Your task to perform on an android device: change the clock display to analog Image 0: 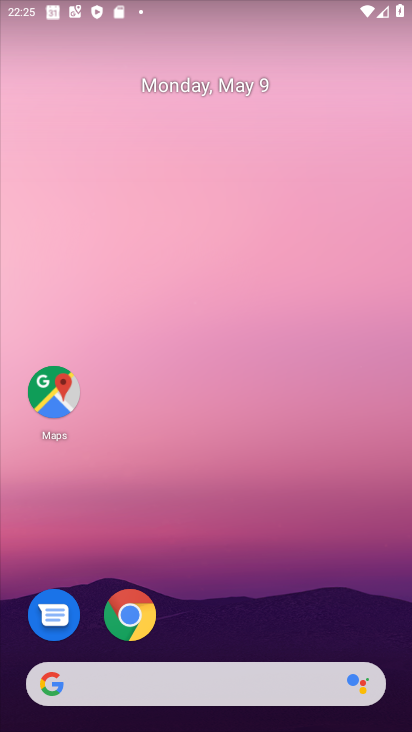
Step 0: drag from (213, 574) to (262, 94)
Your task to perform on an android device: change the clock display to analog Image 1: 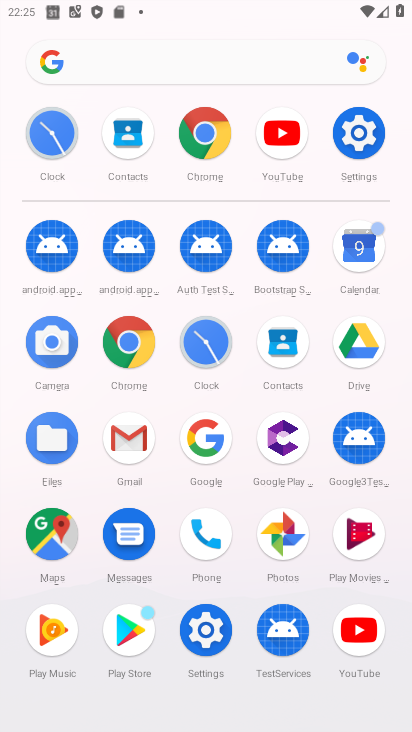
Step 1: click (205, 345)
Your task to perform on an android device: change the clock display to analog Image 2: 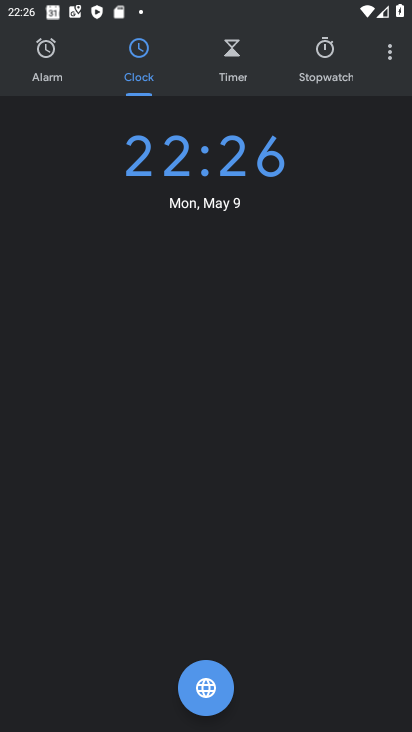
Step 2: click (393, 61)
Your task to perform on an android device: change the clock display to analog Image 3: 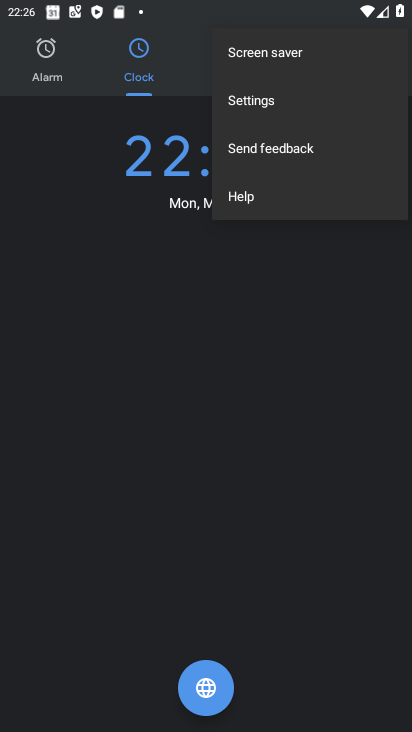
Step 3: click (284, 112)
Your task to perform on an android device: change the clock display to analog Image 4: 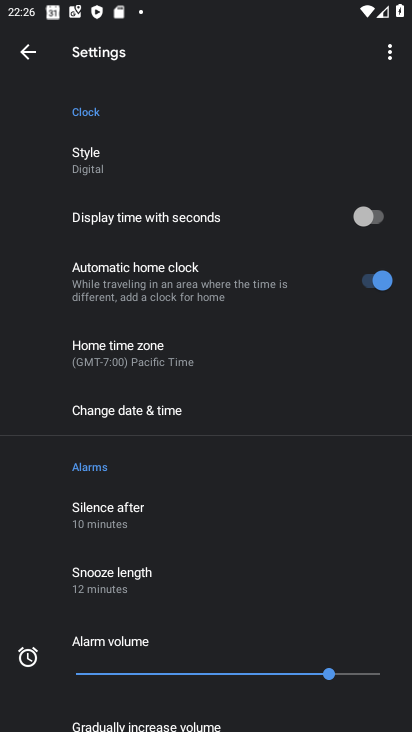
Step 4: click (105, 166)
Your task to perform on an android device: change the clock display to analog Image 5: 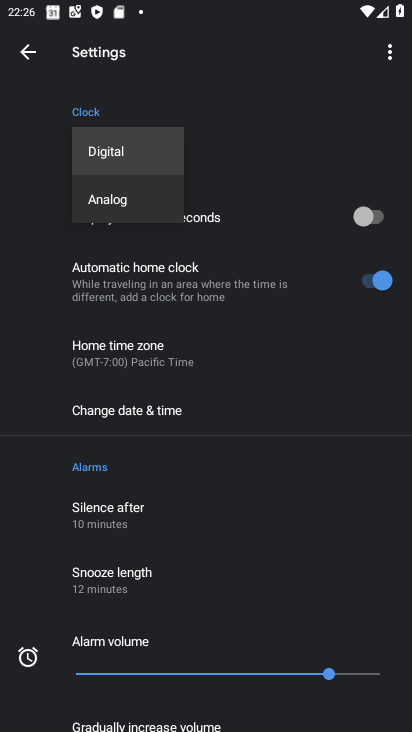
Step 5: click (123, 214)
Your task to perform on an android device: change the clock display to analog Image 6: 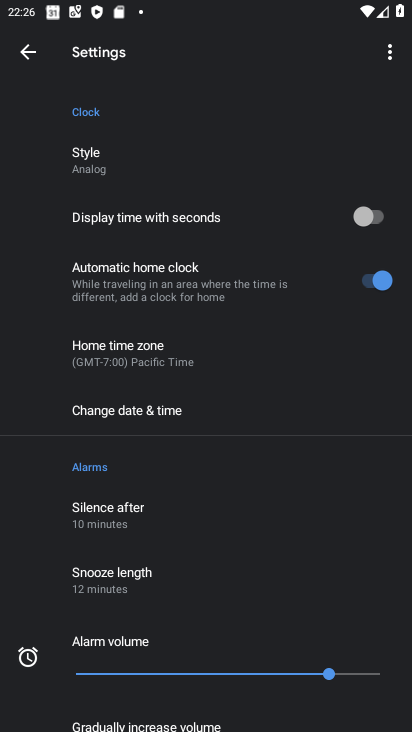
Step 6: task complete